Your task to perform on an android device: Open Youtube and go to "Your channel" Image 0: 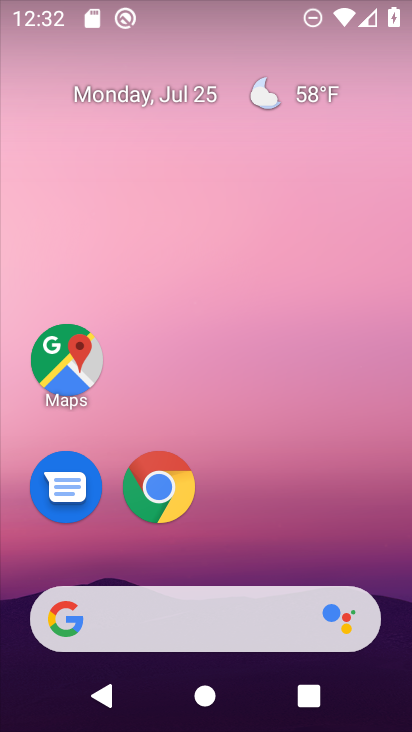
Step 0: drag from (246, 567) to (256, 84)
Your task to perform on an android device: Open Youtube and go to "Your channel" Image 1: 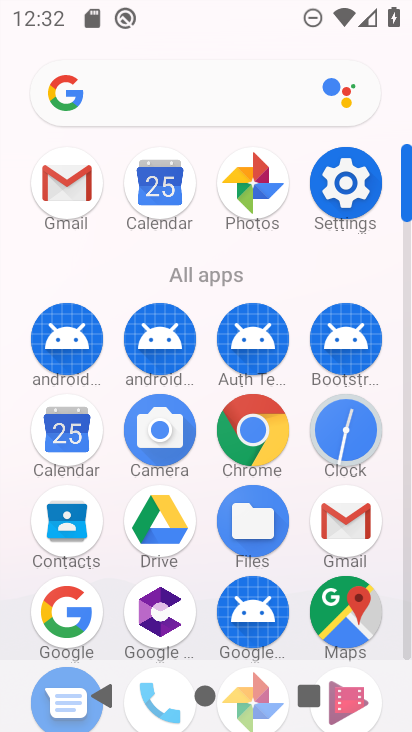
Step 1: drag from (182, 588) to (261, 3)
Your task to perform on an android device: Open Youtube and go to "Your channel" Image 2: 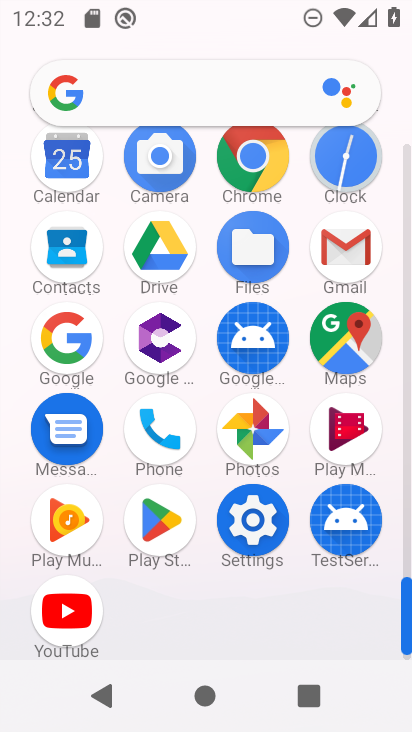
Step 2: click (68, 614)
Your task to perform on an android device: Open Youtube and go to "Your channel" Image 3: 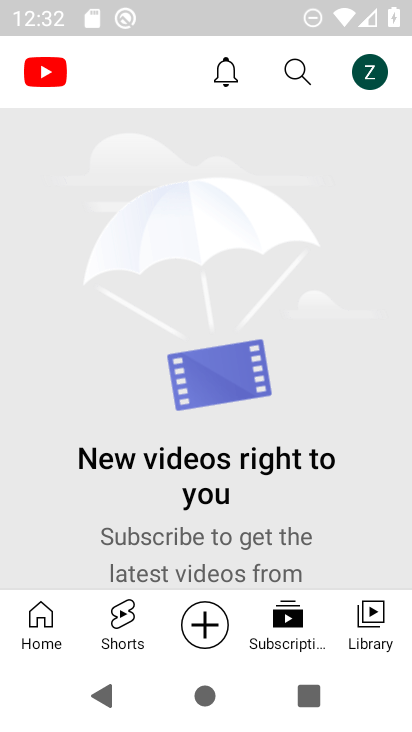
Step 3: click (382, 62)
Your task to perform on an android device: Open Youtube and go to "Your channel" Image 4: 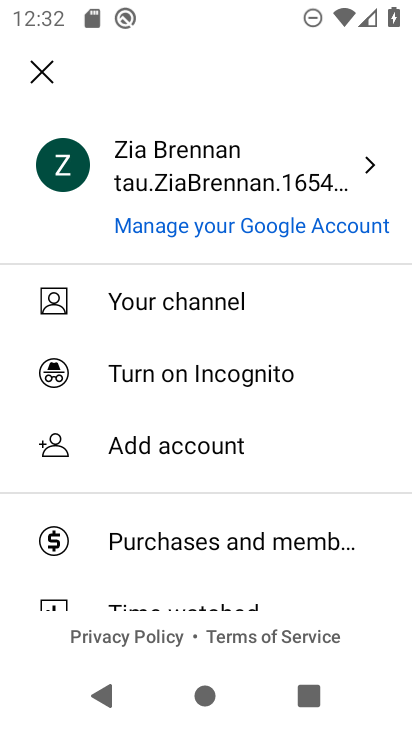
Step 4: click (145, 285)
Your task to perform on an android device: Open Youtube and go to "Your channel" Image 5: 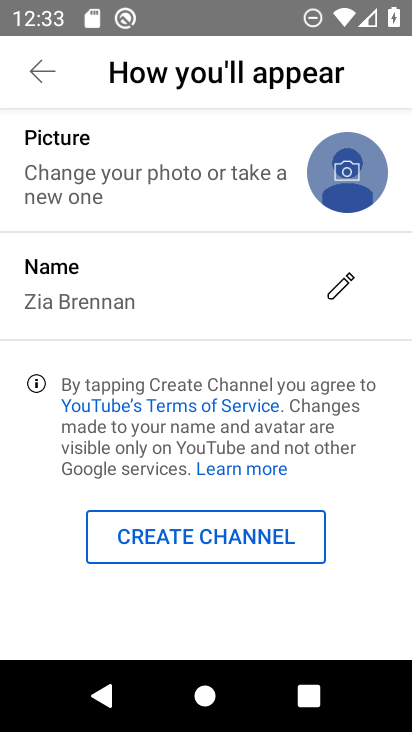
Step 5: task complete